Your task to perform on an android device: Open ESPN.com Image 0: 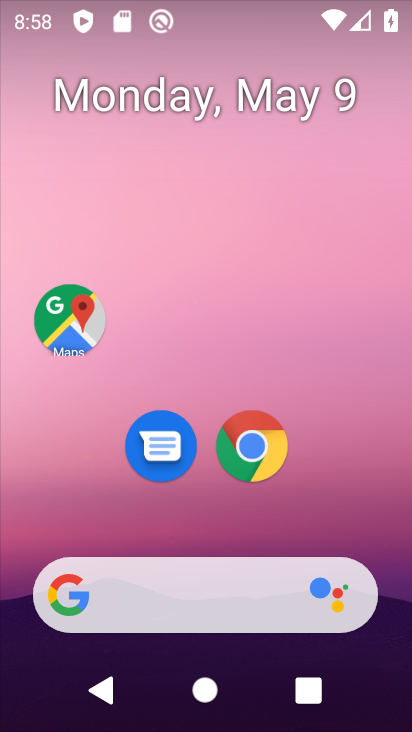
Step 0: click (274, 455)
Your task to perform on an android device: Open ESPN.com Image 1: 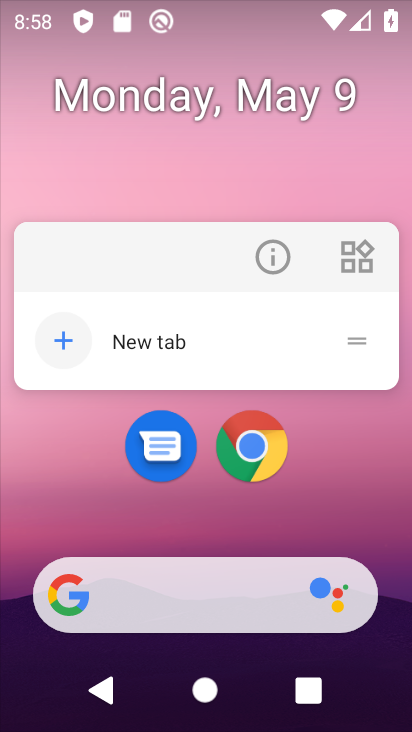
Step 1: click (274, 455)
Your task to perform on an android device: Open ESPN.com Image 2: 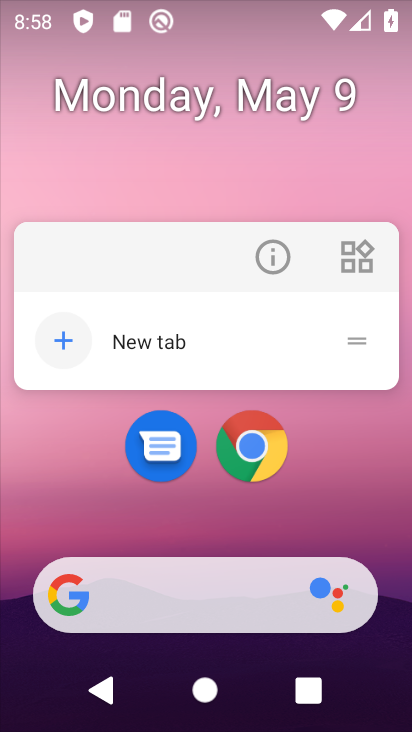
Step 2: click (245, 433)
Your task to perform on an android device: Open ESPN.com Image 3: 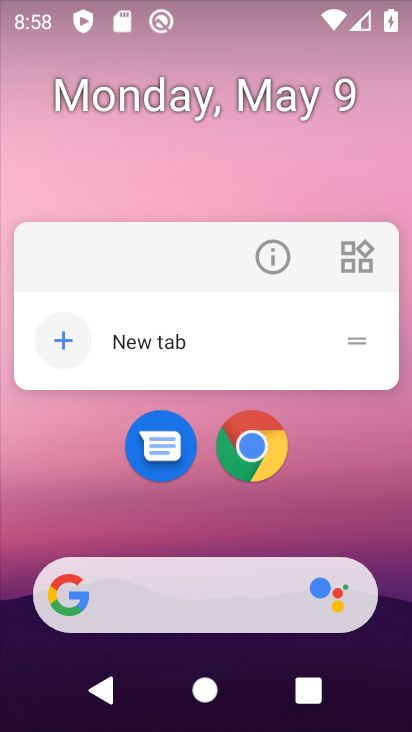
Step 3: click (245, 432)
Your task to perform on an android device: Open ESPN.com Image 4: 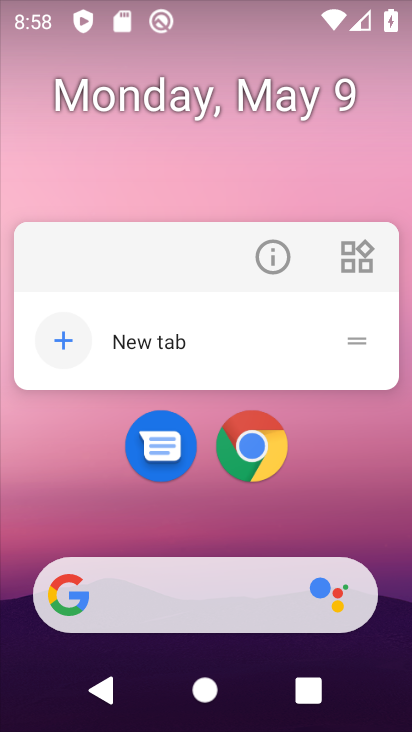
Step 4: click (241, 443)
Your task to perform on an android device: Open ESPN.com Image 5: 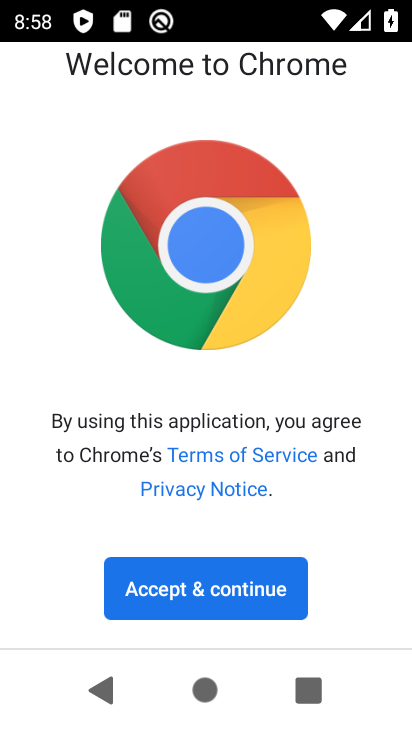
Step 5: click (259, 602)
Your task to perform on an android device: Open ESPN.com Image 6: 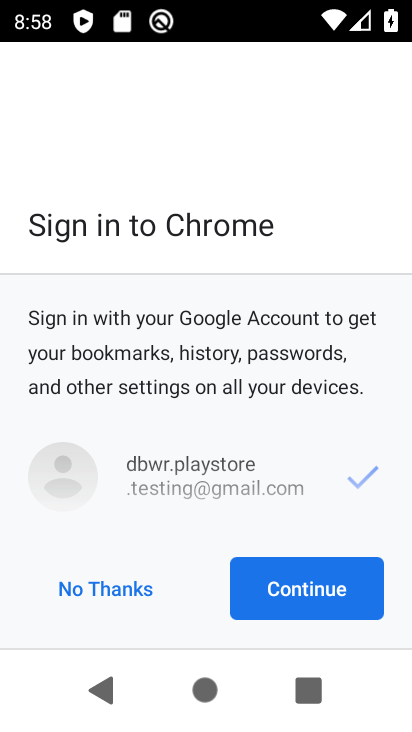
Step 6: click (258, 602)
Your task to perform on an android device: Open ESPN.com Image 7: 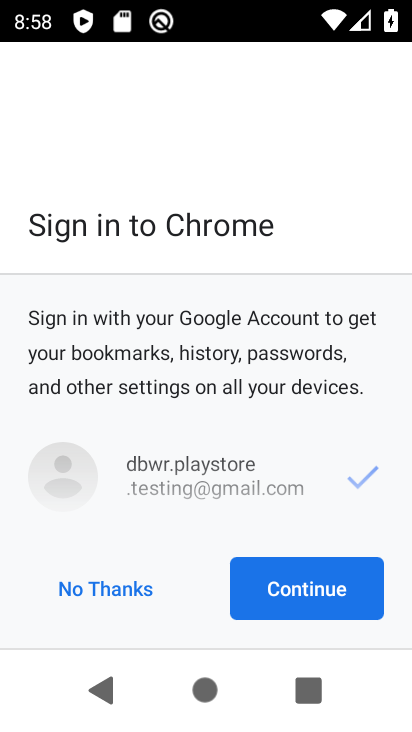
Step 7: click (258, 602)
Your task to perform on an android device: Open ESPN.com Image 8: 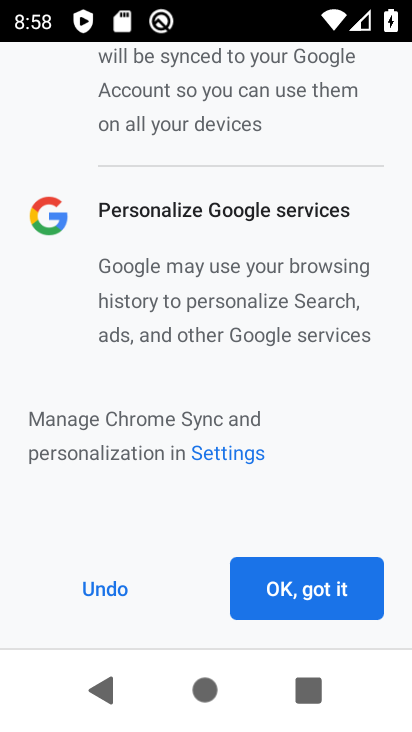
Step 8: click (258, 602)
Your task to perform on an android device: Open ESPN.com Image 9: 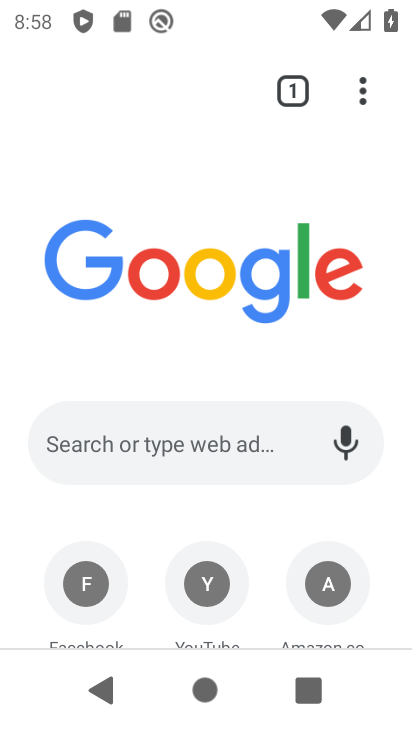
Step 9: click (168, 105)
Your task to perform on an android device: Open ESPN.com Image 10: 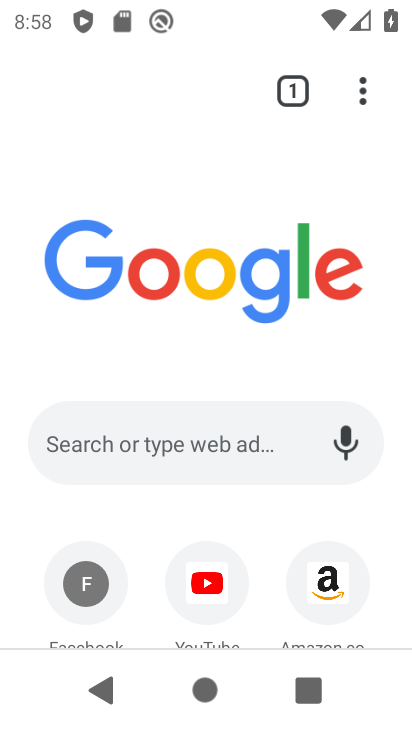
Step 10: click (104, 451)
Your task to perform on an android device: Open ESPN.com Image 11: 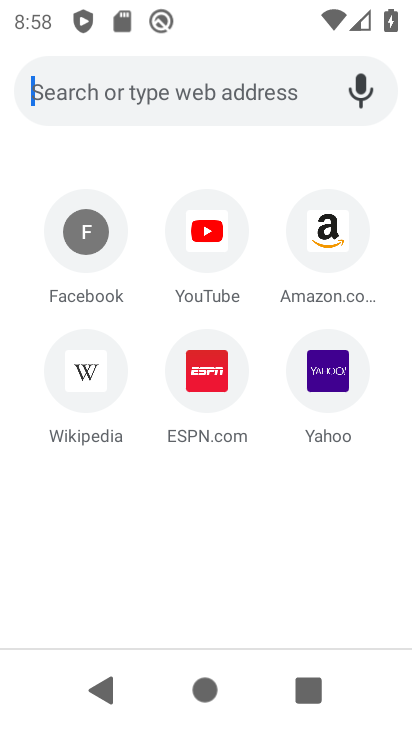
Step 11: click (93, 434)
Your task to perform on an android device: Open ESPN.com Image 12: 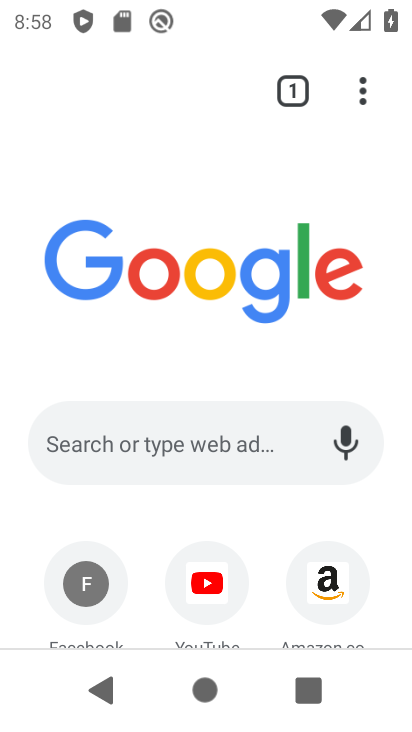
Step 12: click (135, 421)
Your task to perform on an android device: Open ESPN.com Image 13: 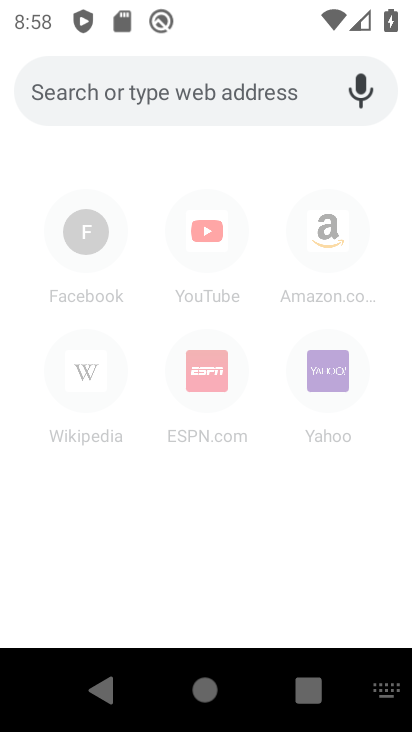
Step 13: click (193, 388)
Your task to perform on an android device: Open ESPN.com Image 14: 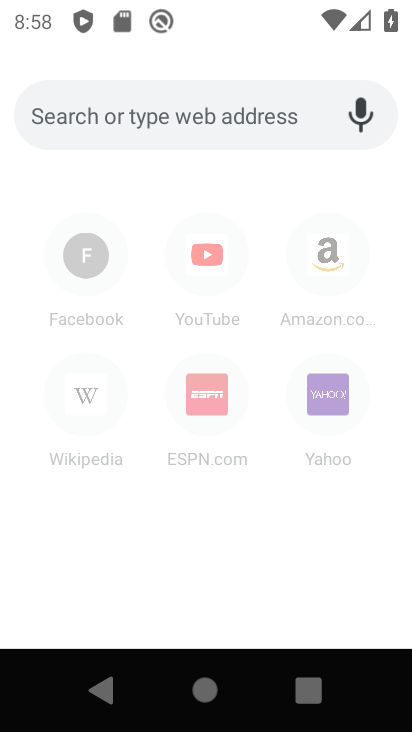
Step 14: click (193, 388)
Your task to perform on an android device: Open ESPN.com Image 15: 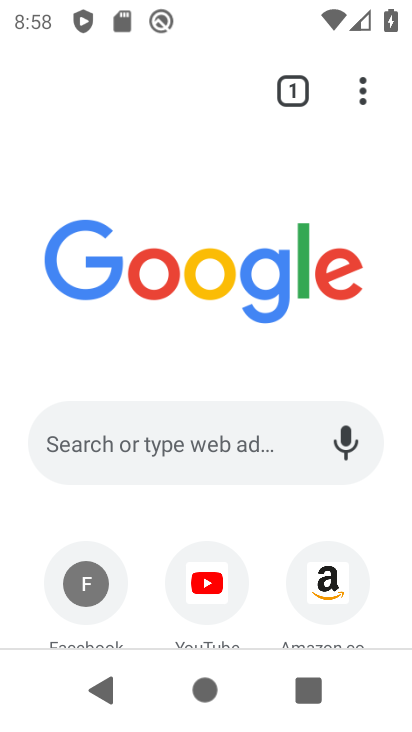
Step 15: drag from (270, 553) to (257, 156)
Your task to perform on an android device: Open ESPN.com Image 16: 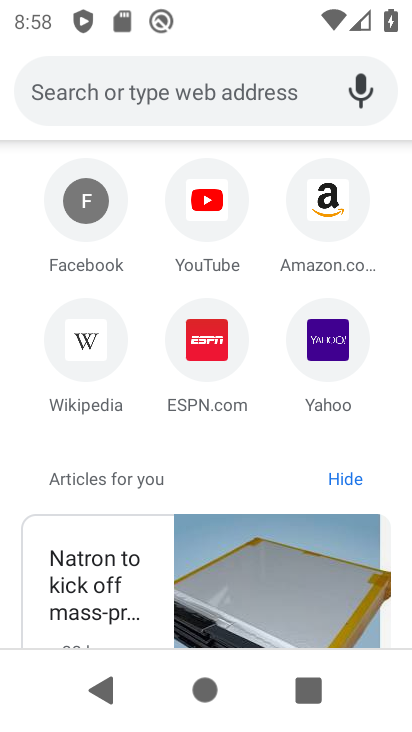
Step 16: click (210, 324)
Your task to perform on an android device: Open ESPN.com Image 17: 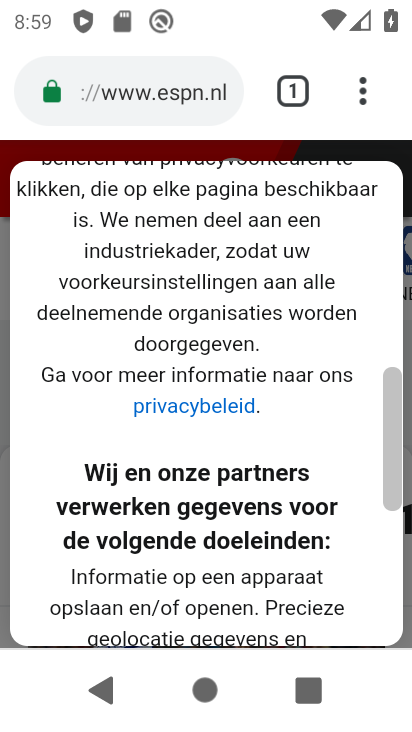
Step 17: task complete